Your task to perform on an android device: Go to location settings Image 0: 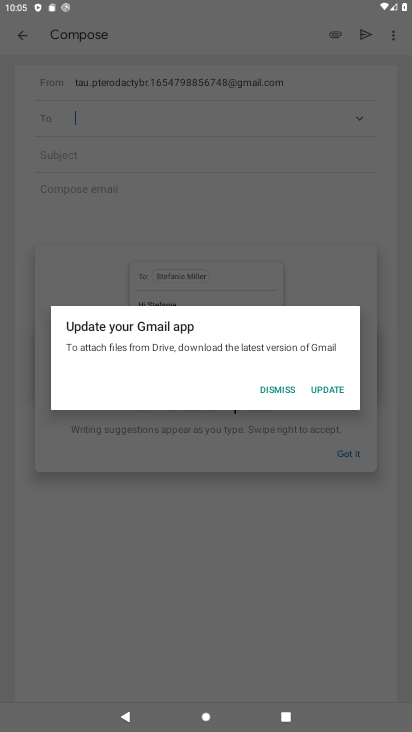
Step 0: press home button
Your task to perform on an android device: Go to location settings Image 1: 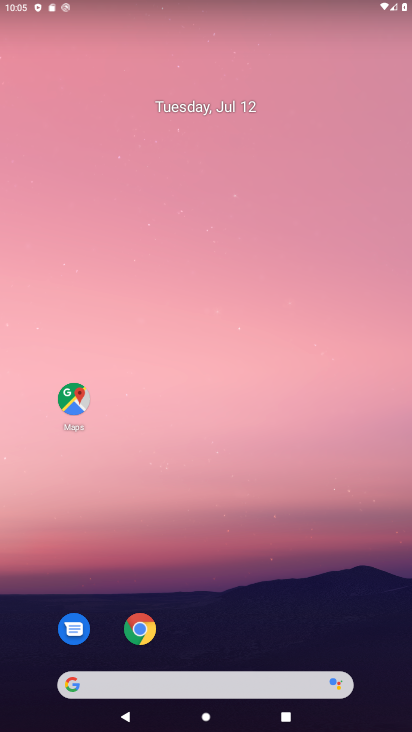
Step 1: drag from (326, 589) to (290, 79)
Your task to perform on an android device: Go to location settings Image 2: 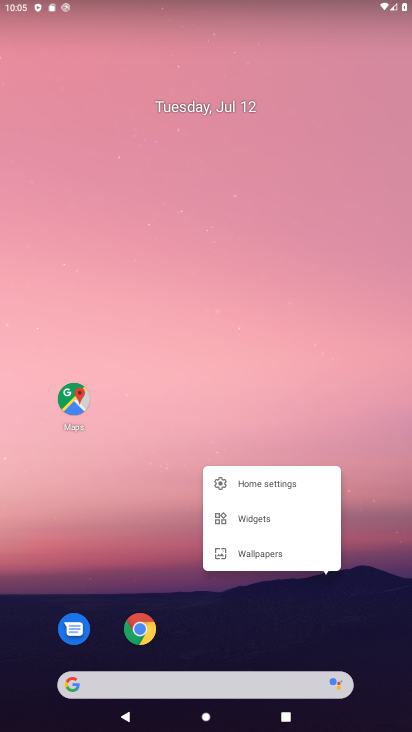
Step 2: click (262, 414)
Your task to perform on an android device: Go to location settings Image 3: 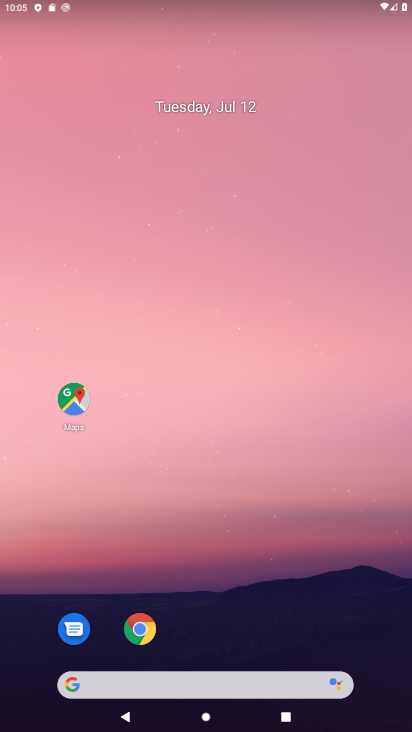
Step 3: drag from (262, 414) to (229, 161)
Your task to perform on an android device: Go to location settings Image 4: 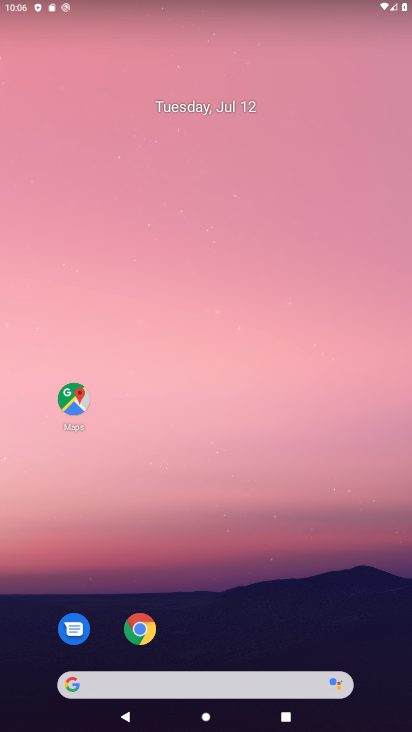
Step 4: drag from (382, 650) to (305, 9)
Your task to perform on an android device: Go to location settings Image 5: 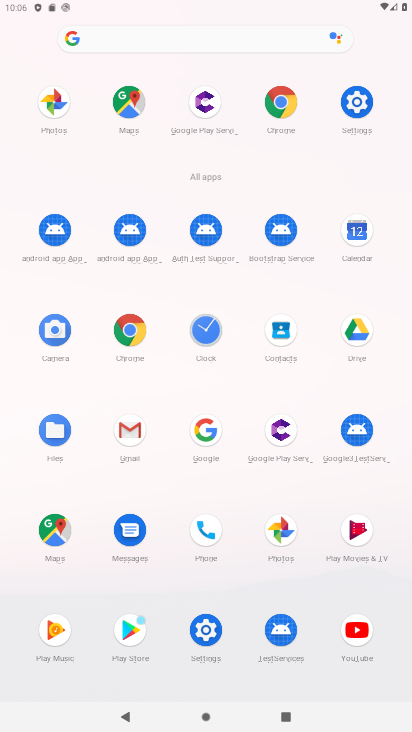
Step 5: click (209, 633)
Your task to perform on an android device: Go to location settings Image 6: 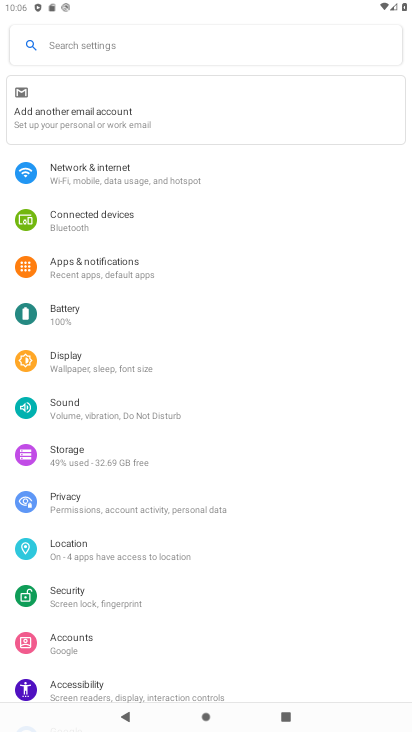
Step 6: click (163, 558)
Your task to perform on an android device: Go to location settings Image 7: 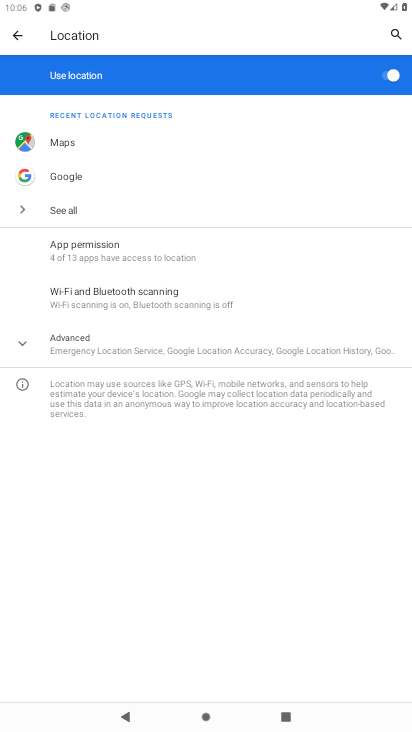
Step 7: task complete